Your task to perform on an android device: open app "Chime – Mobile Banking" Image 0: 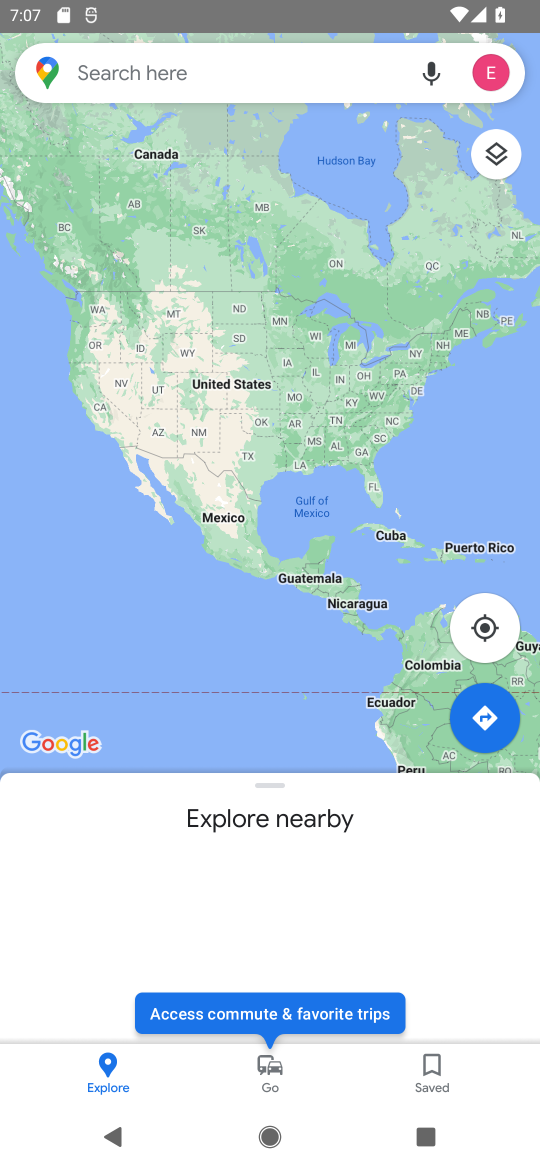
Step 0: press home button
Your task to perform on an android device: open app "Chime – Mobile Banking" Image 1: 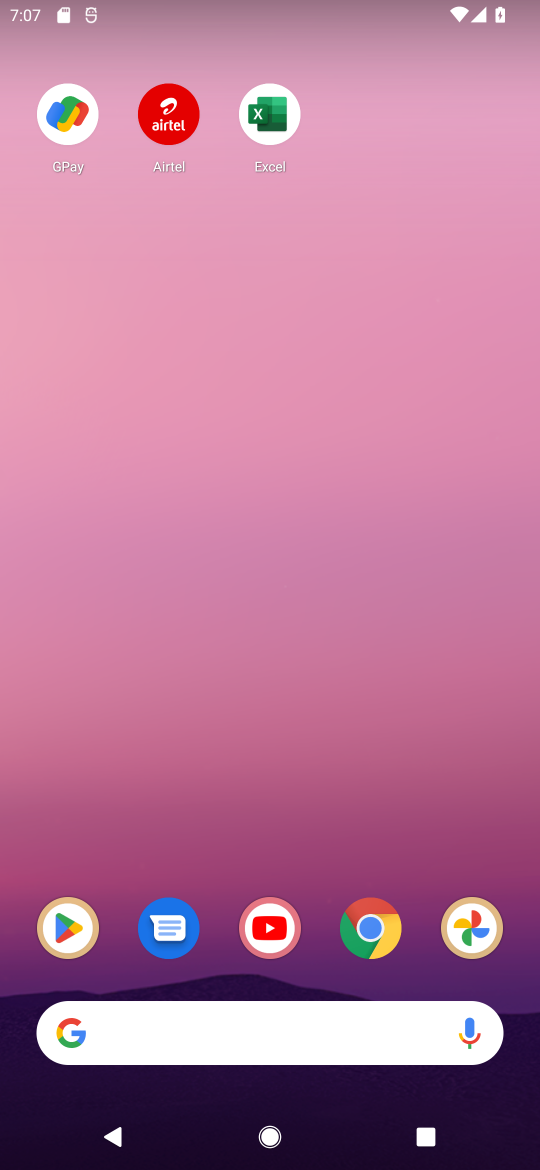
Step 1: click (60, 918)
Your task to perform on an android device: open app "Chime – Mobile Banking" Image 2: 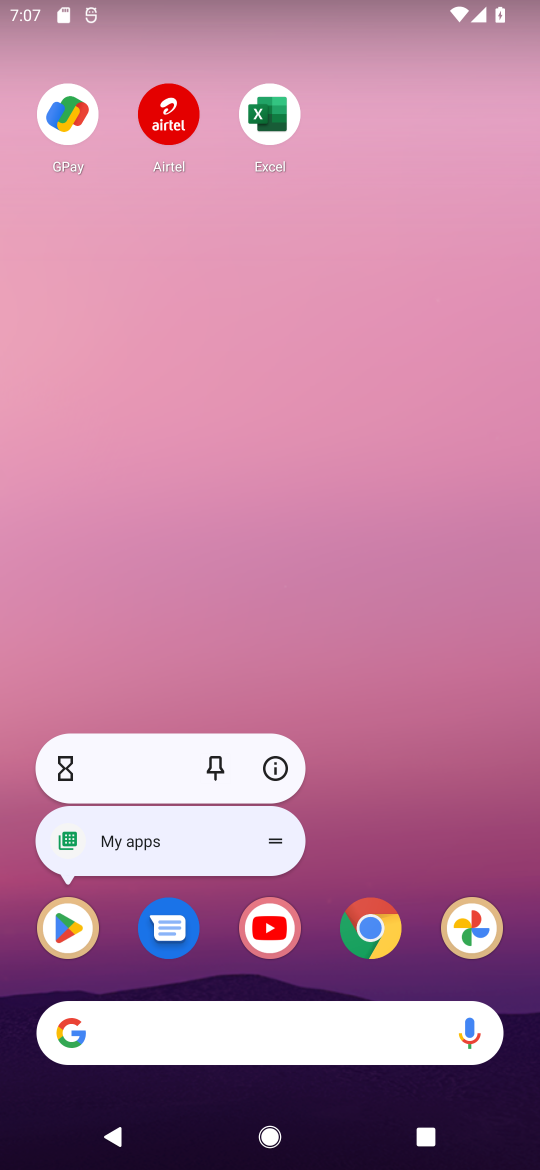
Step 2: click (60, 918)
Your task to perform on an android device: open app "Chime – Mobile Banking" Image 3: 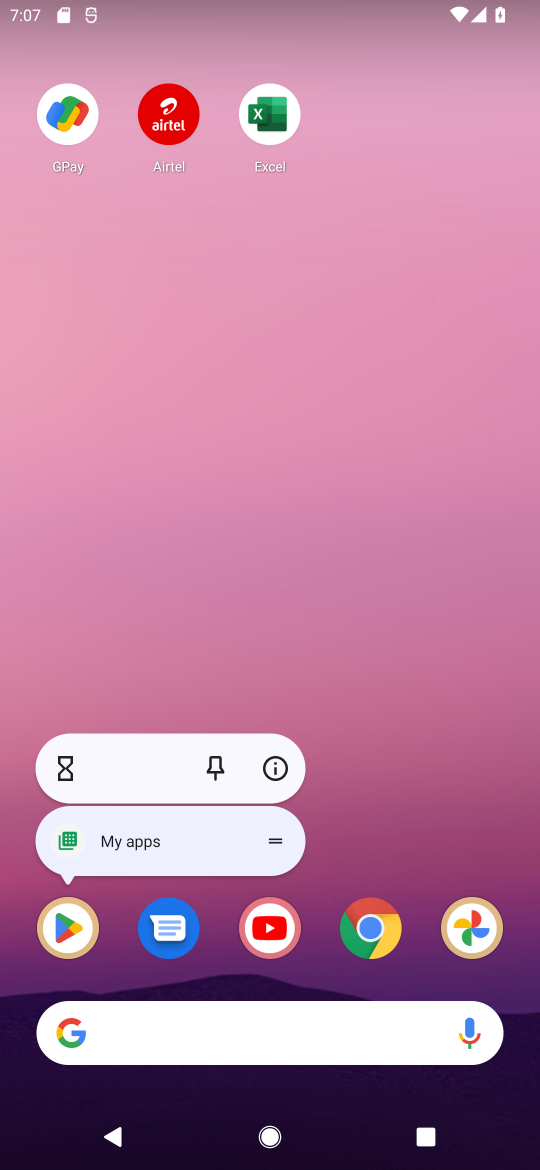
Step 3: click (68, 951)
Your task to perform on an android device: open app "Chime – Mobile Banking" Image 4: 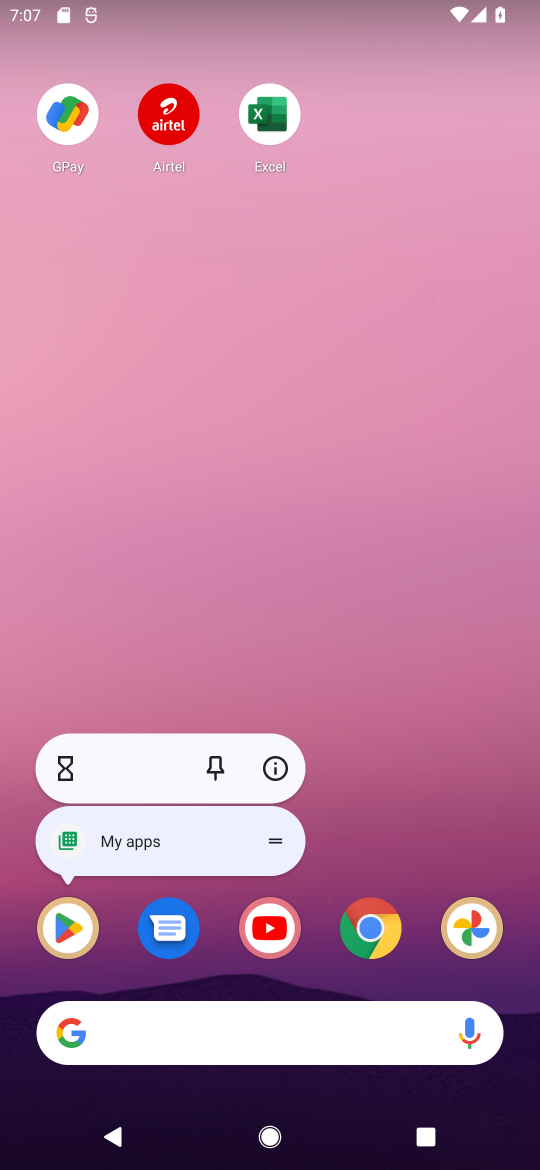
Step 4: click (39, 945)
Your task to perform on an android device: open app "Chime – Mobile Banking" Image 5: 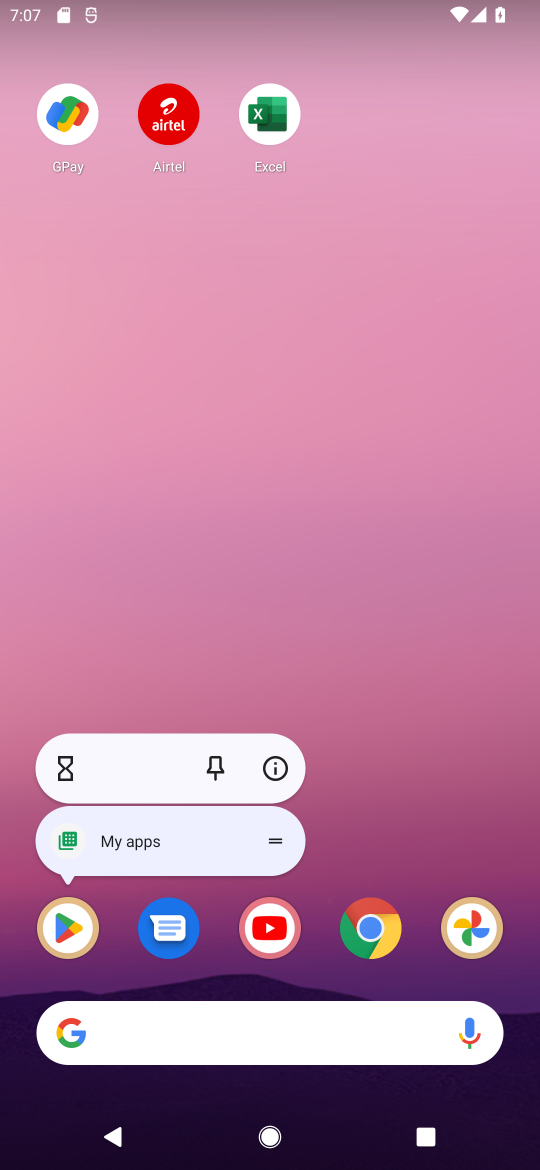
Step 5: click (57, 936)
Your task to perform on an android device: open app "Chime – Mobile Banking" Image 6: 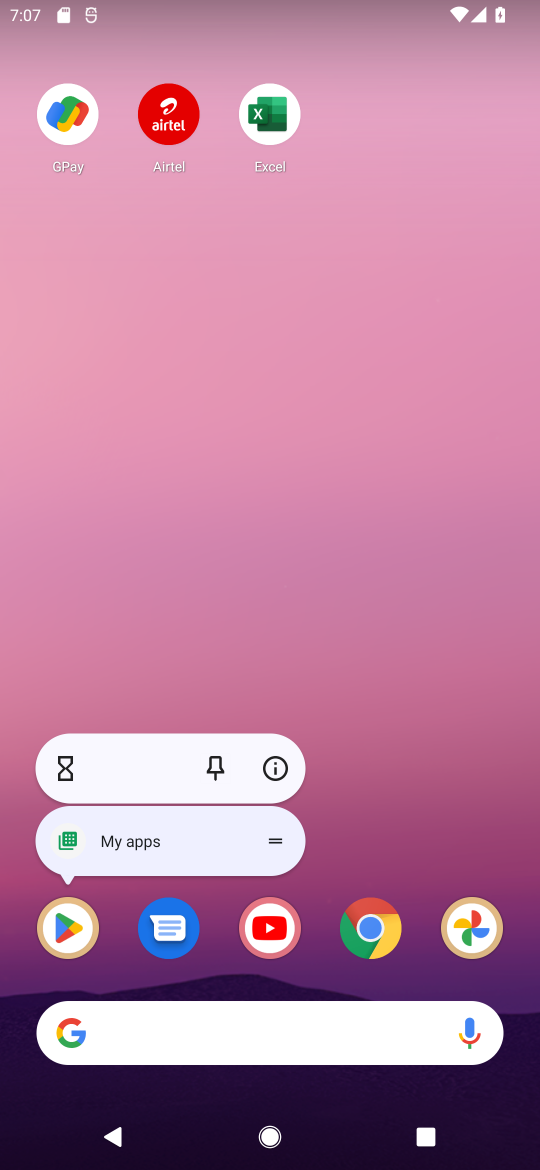
Step 6: click (86, 921)
Your task to perform on an android device: open app "Chime – Mobile Banking" Image 7: 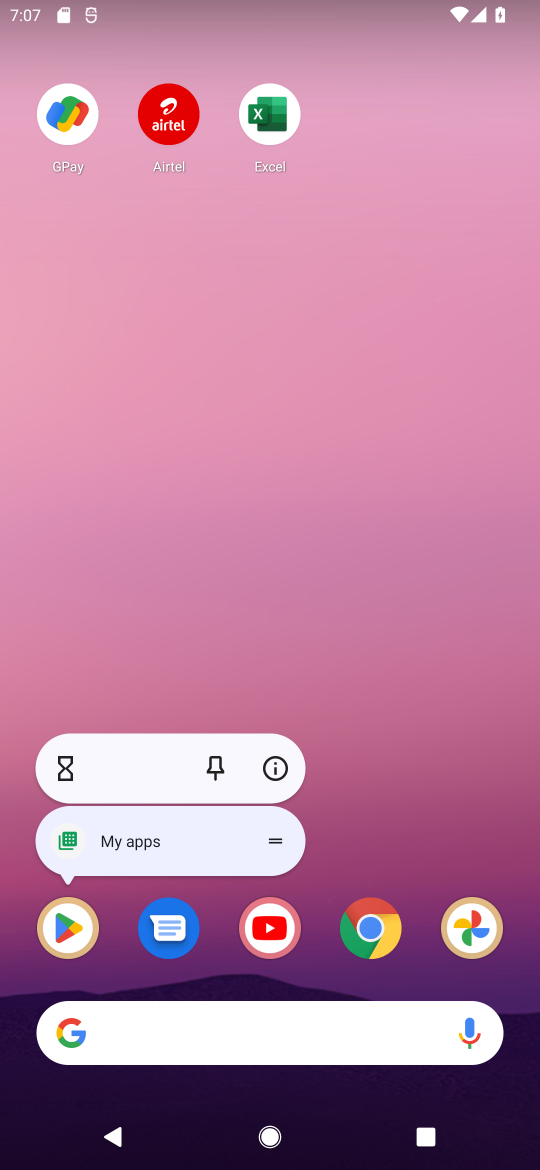
Step 7: click (49, 964)
Your task to perform on an android device: open app "Chime – Mobile Banking" Image 8: 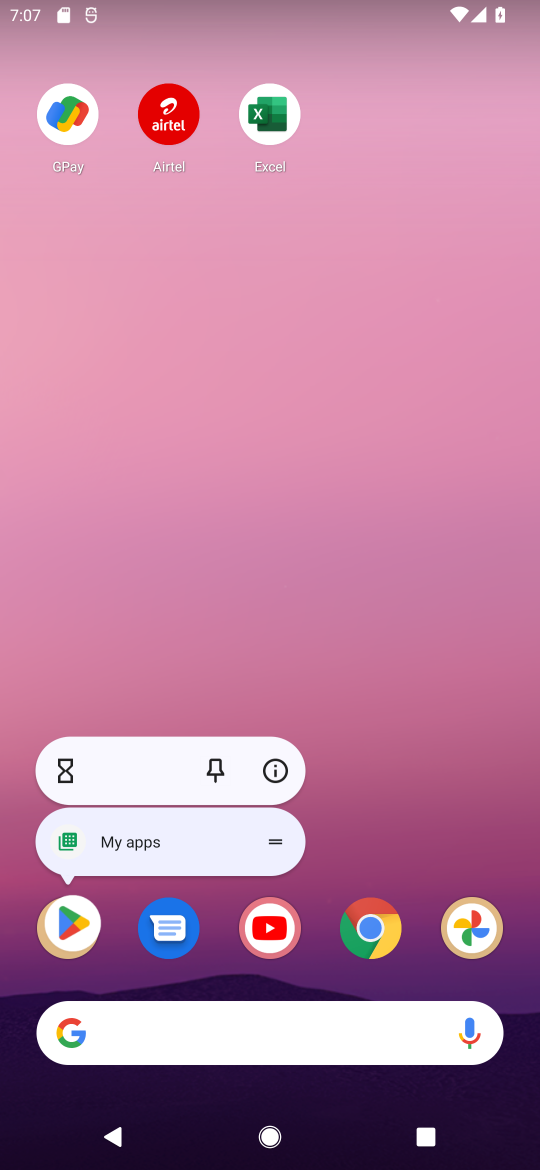
Step 8: click (34, 921)
Your task to perform on an android device: open app "Chime – Mobile Banking" Image 9: 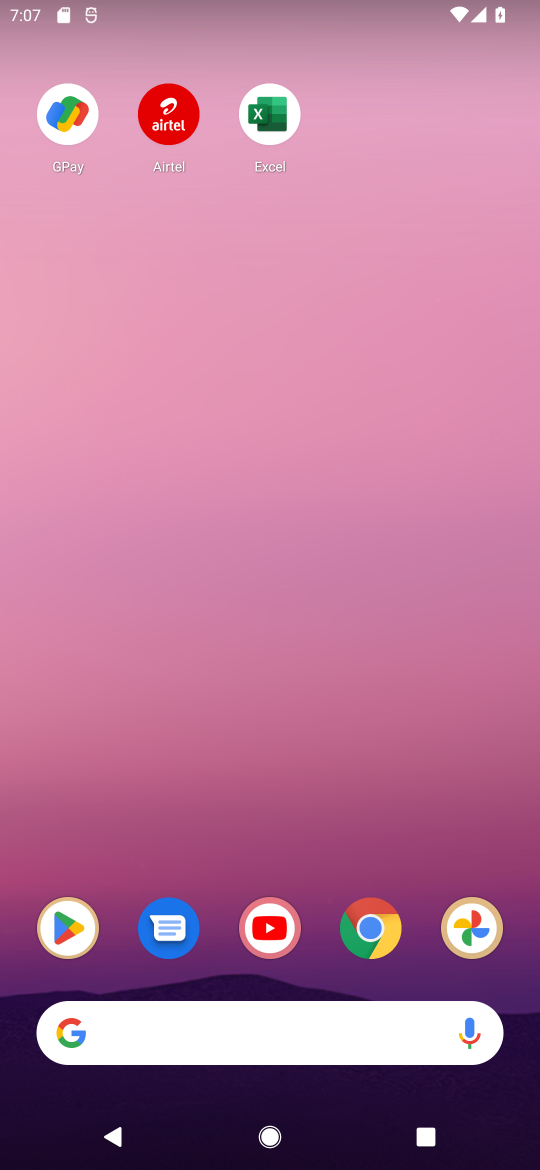
Step 9: click (144, 959)
Your task to perform on an android device: open app "Chime – Mobile Banking" Image 10: 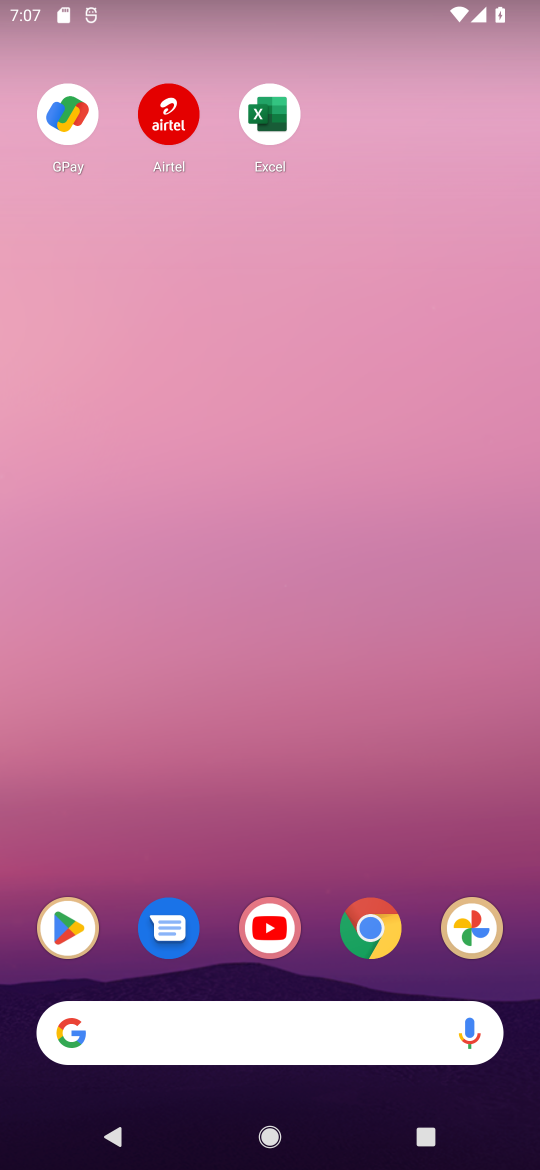
Step 10: click (84, 915)
Your task to perform on an android device: open app "Chime – Mobile Banking" Image 11: 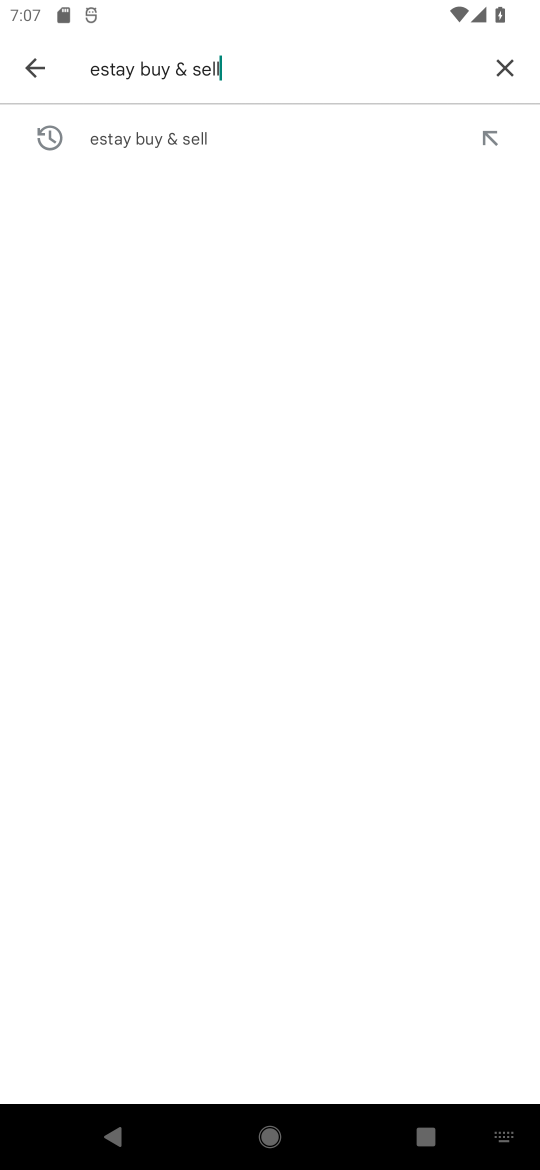
Step 11: click (512, 70)
Your task to perform on an android device: open app "Chime – Mobile Banking" Image 12: 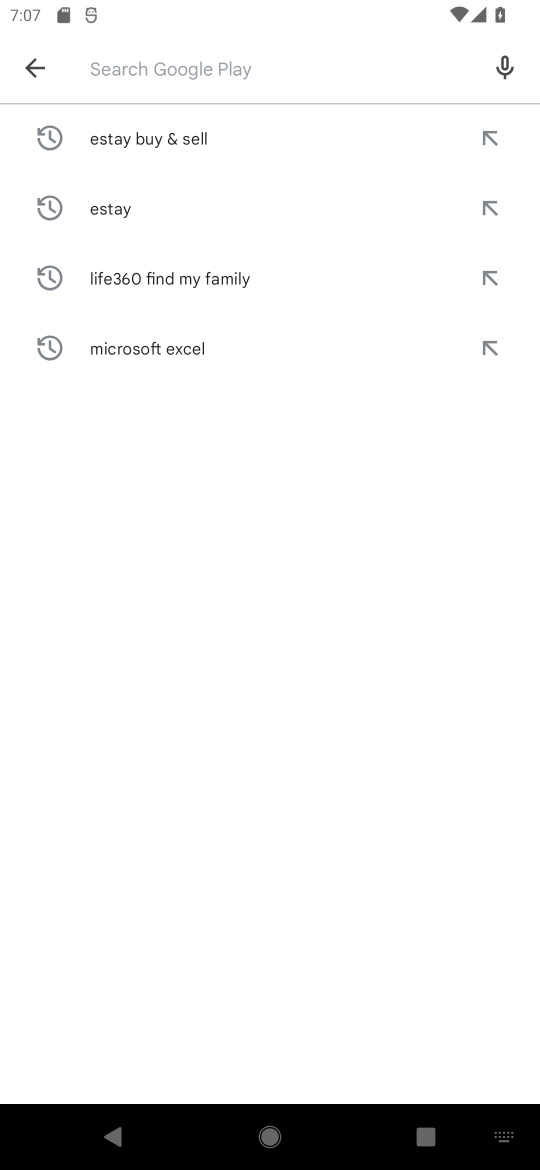
Step 12: type "chime mobile banking"
Your task to perform on an android device: open app "Chime – Mobile Banking" Image 13: 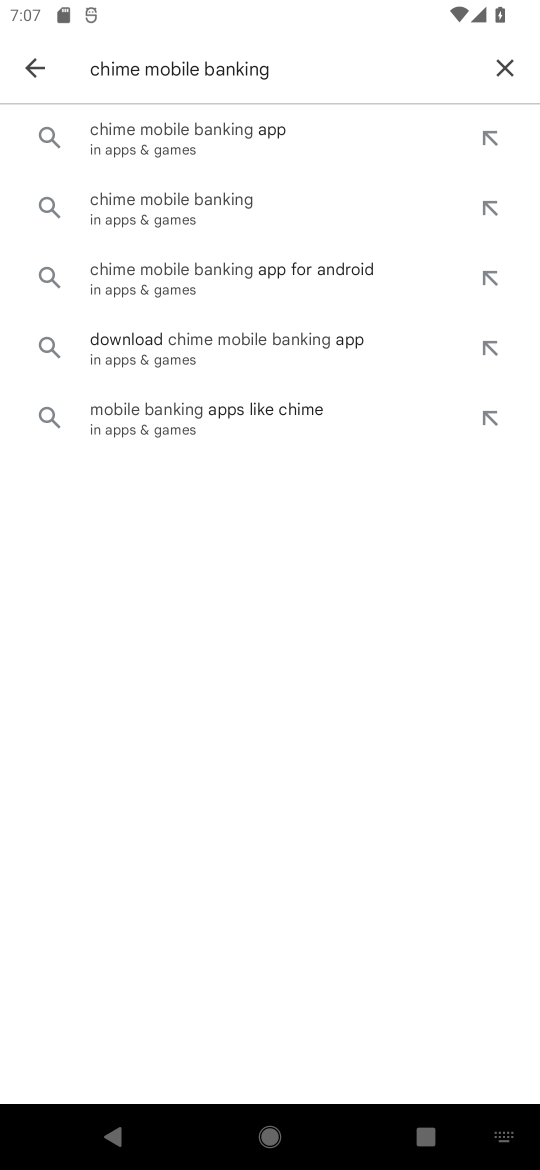
Step 13: click (160, 136)
Your task to perform on an android device: open app "Chime – Mobile Banking" Image 14: 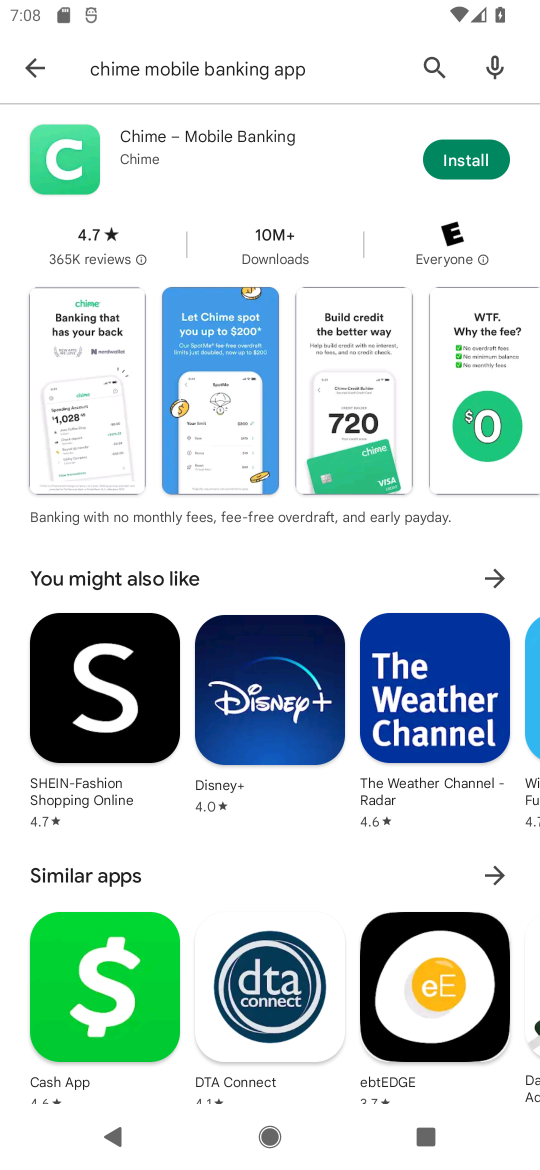
Step 14: task complete